Your task to perform on an android device: check out phone information Image 0: 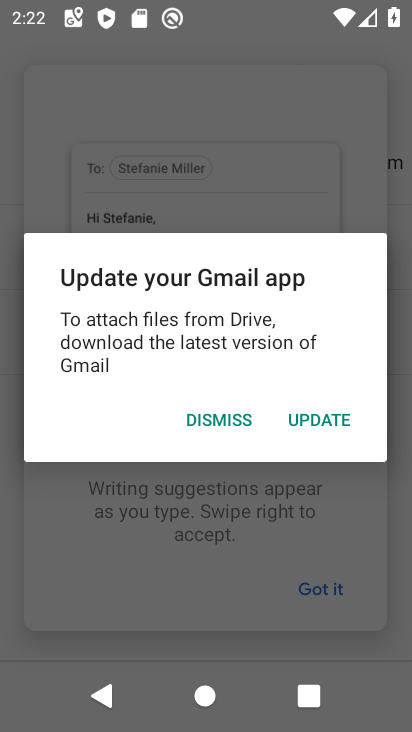
Step 0: press home button
Your task to perform on an android device: check out phone information Image 1: 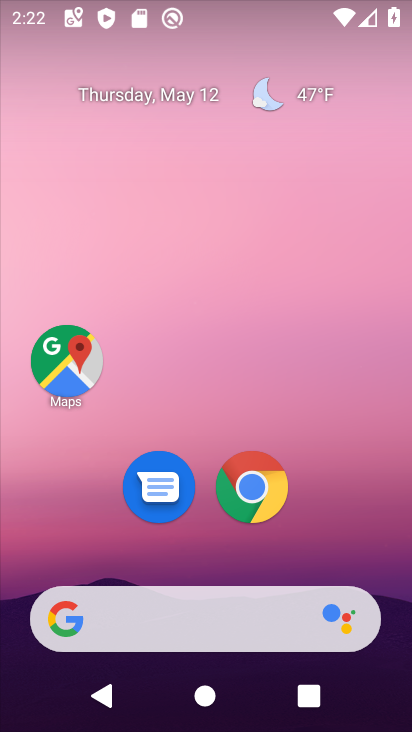
Step 1: drag from (341, 504) to (347, 0)
Your task to perform on an android device: check out phone information Image 2: 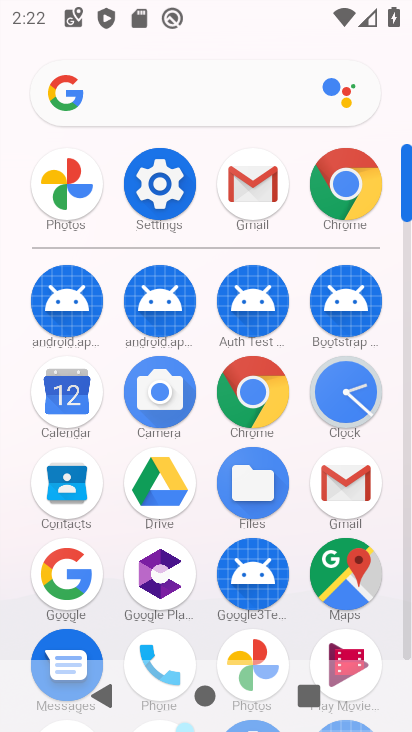
Step 2: click (165, 638)
Your task to perform on an android device: check out phone information Image 3: 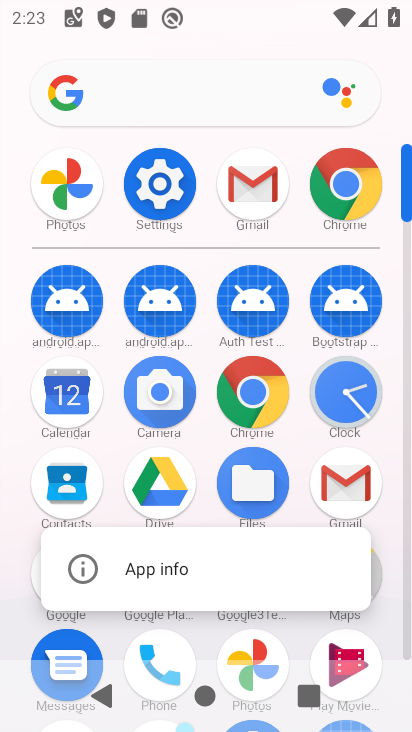
Step 3: click (189, 563)
Your task to perform on an android device: check out phone information Image 4: 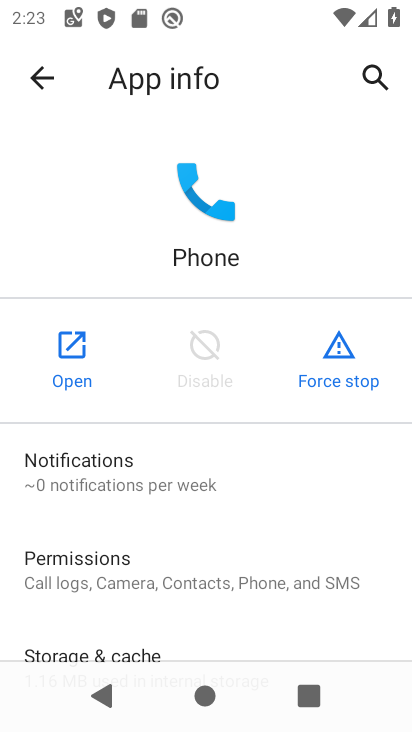
Step 4: task complete